Your task to perform on an android device: open chrome privacy settings Image 0: 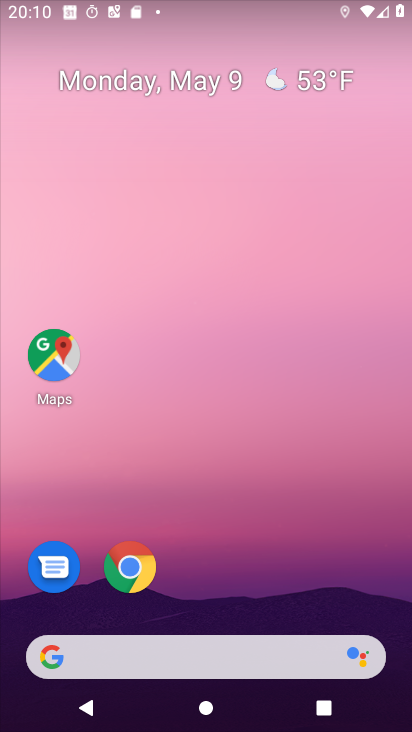
Step 0: click (122, 555)
Your task to perform on an android device: open chrome privacy settings Image 1: 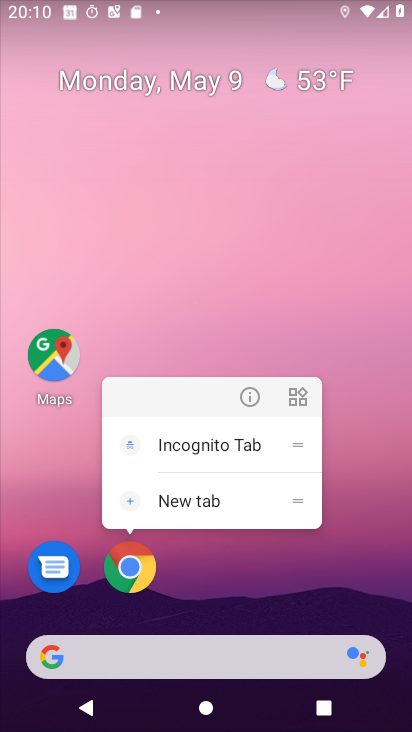
Step 1: click (122, 552)
Your task to perform on an android device: open chrome privacy settings Image 2: 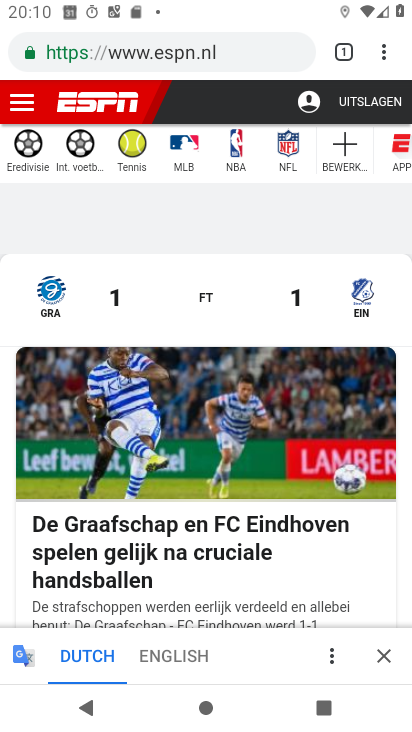
Step 2: click (374, 70)
Your task to perform on an android device: open chrome privacy settings Image 3: 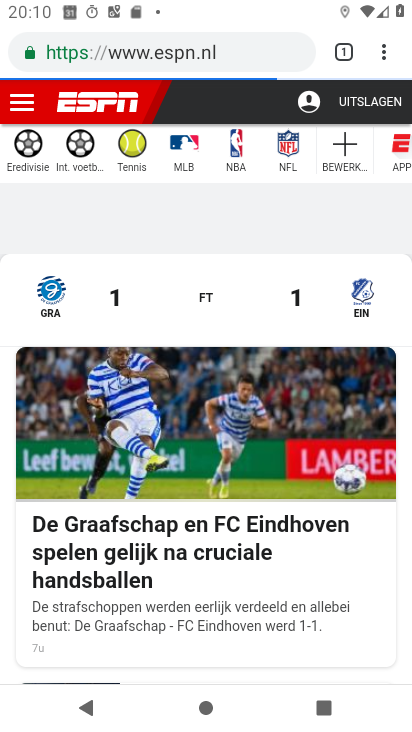
Step 3: click (367, 67)
Your task to perform on an android device: open chrome privacy settings Image 4: 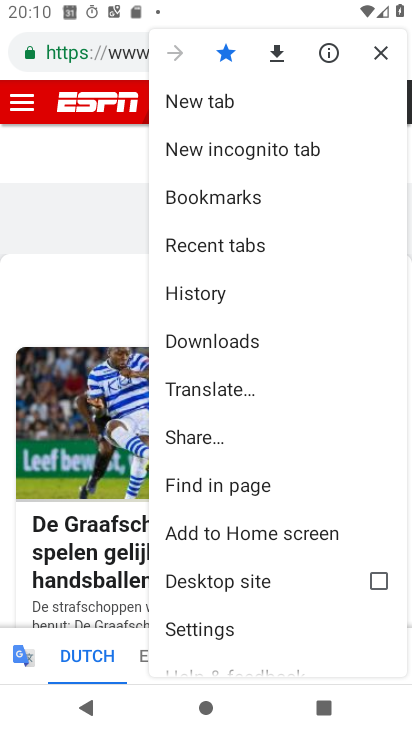
Step 4: click (249, 617)
Your task to perform on an android device: open chrome privacy settings Image 5: 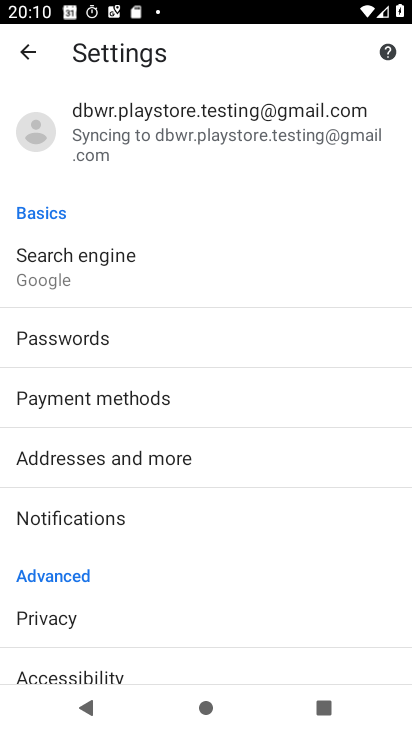
Step 5: click (75, 623)
Your task to perform on an android device: open chrome privacy settings Image 6: 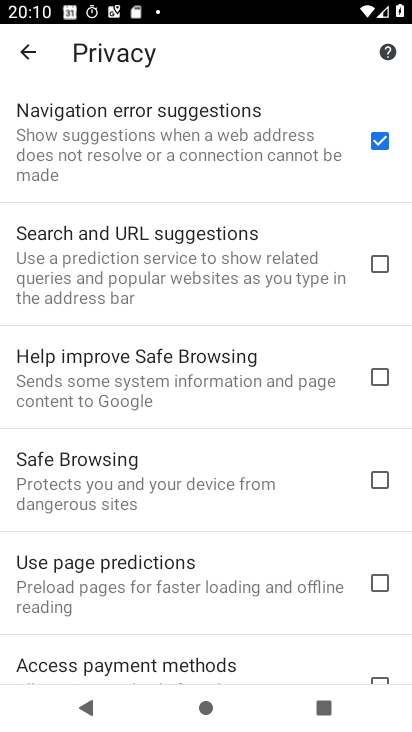
Step 6: task complete